Your task to perform on an android device: Open CNN.com Image 0: 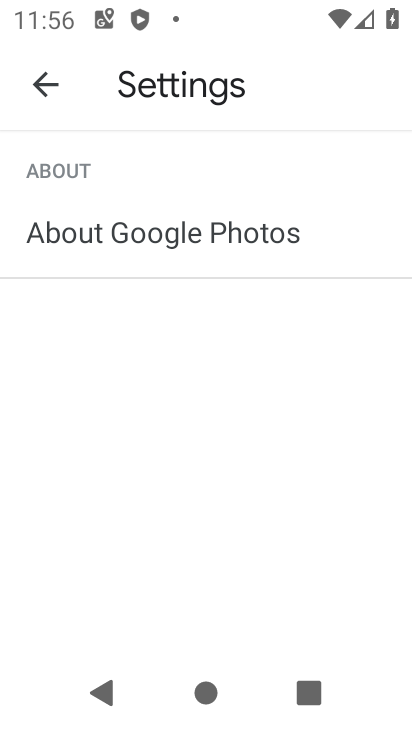
Step 0: press home button
Your task to perform on an android device: Open CNN.com Image 1: 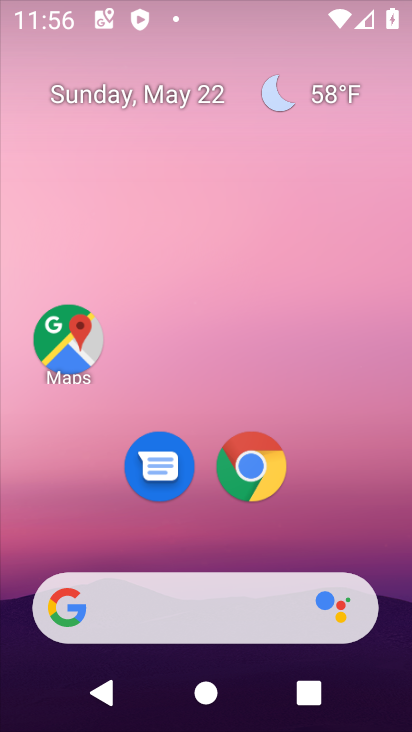
Step 1: drag from (220, 532) to (215, 60)
Your task to perform on an android device: Open CNN.com Image 2: 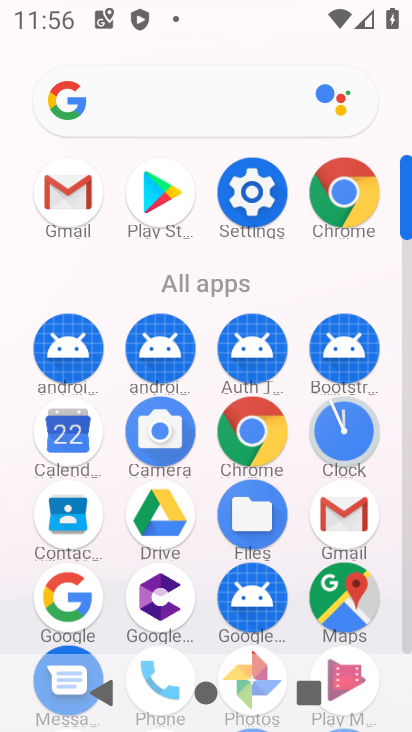
Step 2: click (49, 606)
Your task to perform on an android device: Open CNN.com Image 3: 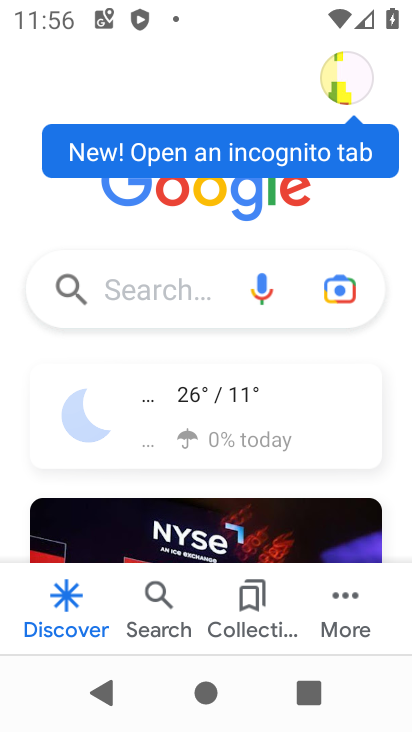
Step 3: click (156, 290)
Your task to perform on an android device: Open CNN.com Image 4: 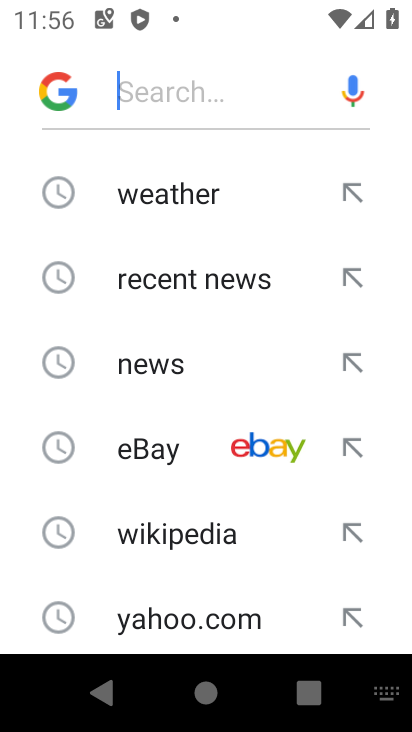
Step 4: drag from (167, 512) to (232, 163)
Your task to perform on an android device: Open CNN.com Image 5: 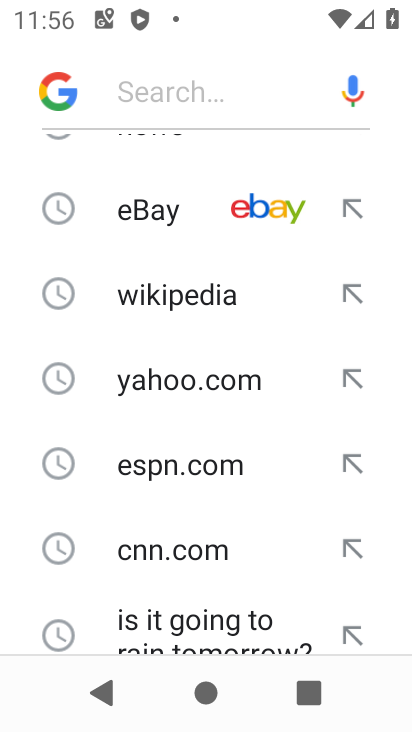
Step 5: click (174, 565)
Your task to perform on an android device: Open CNN.com Image 6: 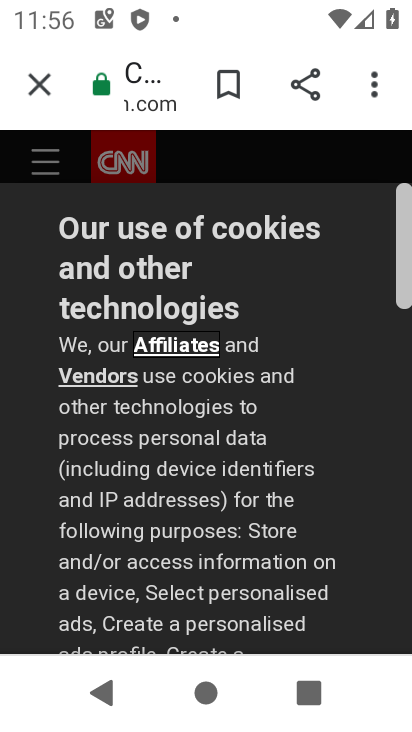
Step 6: task complete